Your task to perform on an android device: toggle javascript in the chrome app Image 0: 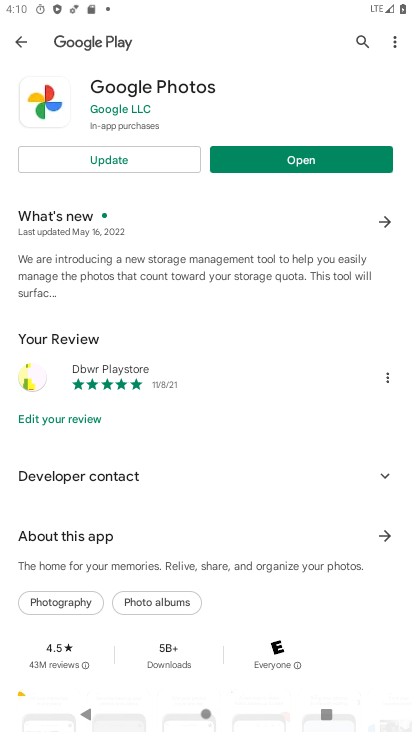
Step 0: press home button
Your task to perform on an android device: toggle javascript in the chrome app Image 1: 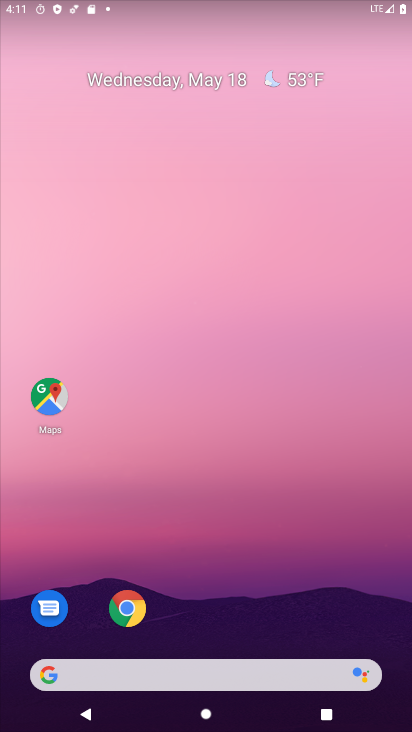
Step 1: drag from (105, 589) to (92, 99)
Your task to perform on an android device: toggle javascript in the chrome app Image 2: 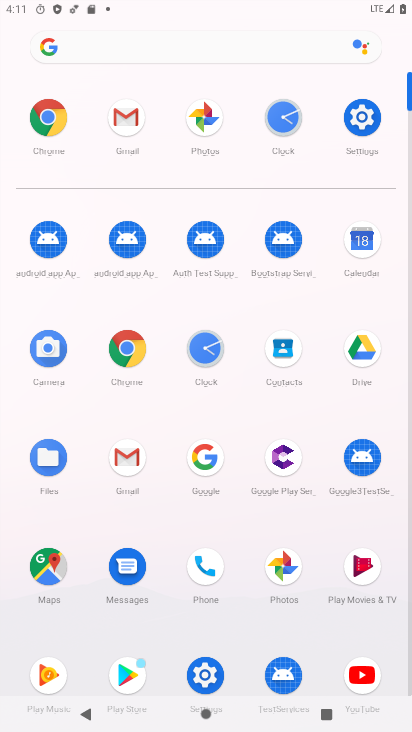
Step 2: click (115, 343)
Your task to perform on an android device: toggle javascript in the chrome app Image 3: 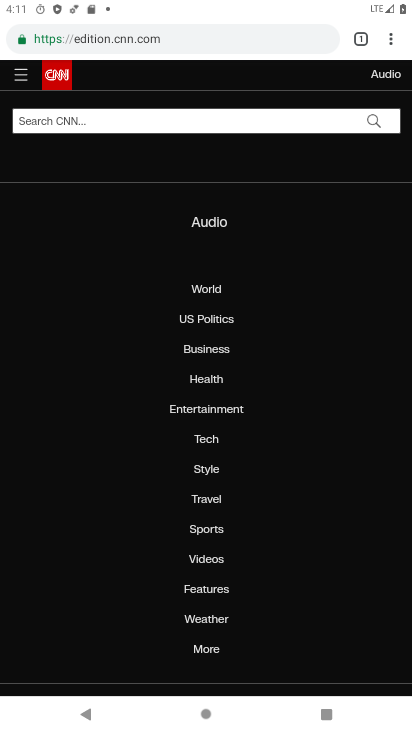
Step 3: click (388, 36)
Your task to perform on an android device: toggle javascript in the chrome app Image 4: 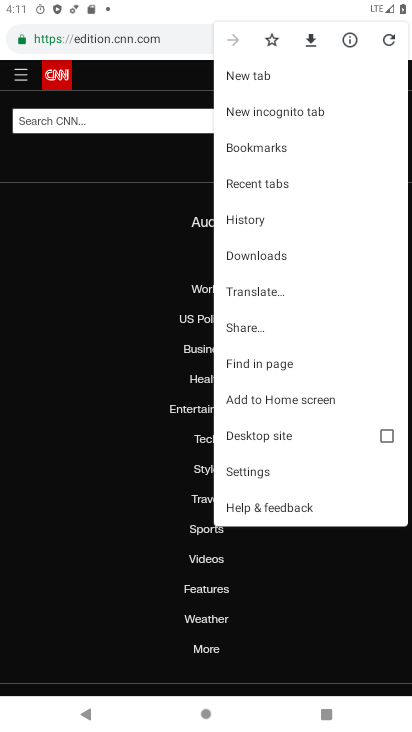
Step 4: click (288, 468)
Your task to perform on an android device: toggle javascript in the chrome app Image 5: 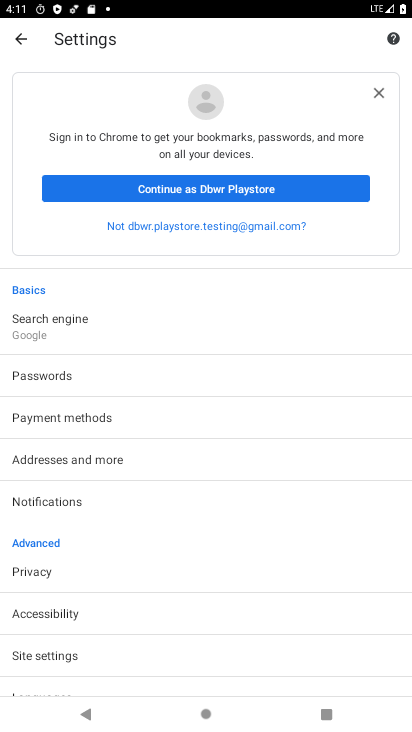
Step 5: drag from (100, 603) to (127, 163)
Your task to perform on an android device: toggle javascript in the chrome app Image 6: 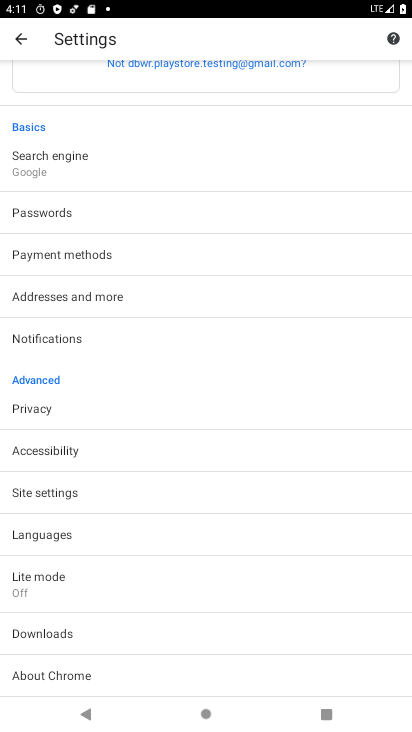
Step 6: click (48, 502)
Your task to perform on an android device: toggle javascript in the chrome app Image 7: 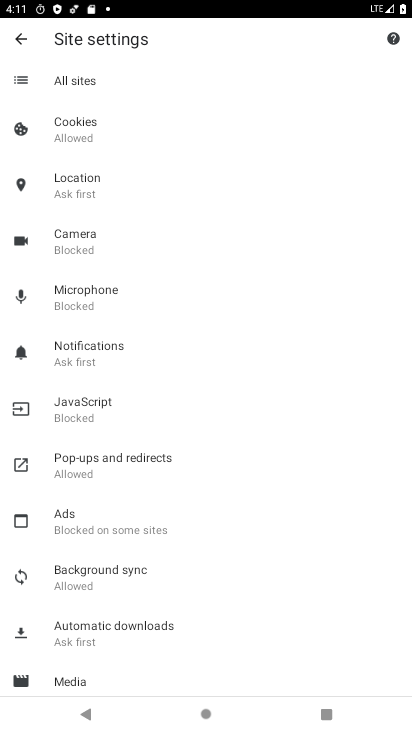
Step 7: click (109, 410)
Your task to perform on an android device: toggle javascript in the chrome app Image 8: 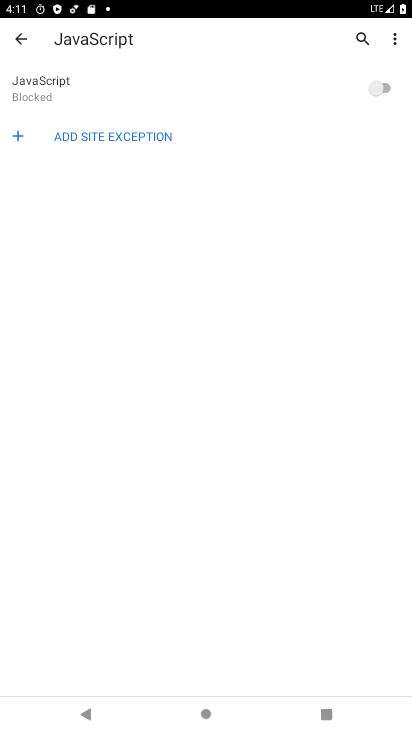
Step 8: click (383, 83)
Your task to perform on an android device: toggle javascript in the chrome app Image 9: 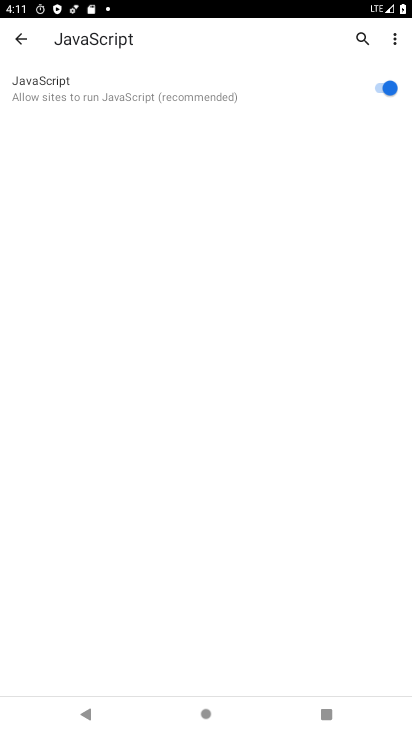
Step 9: task complete